Your task to perform on an android device: View the shopping cart on amazon. Image 0: 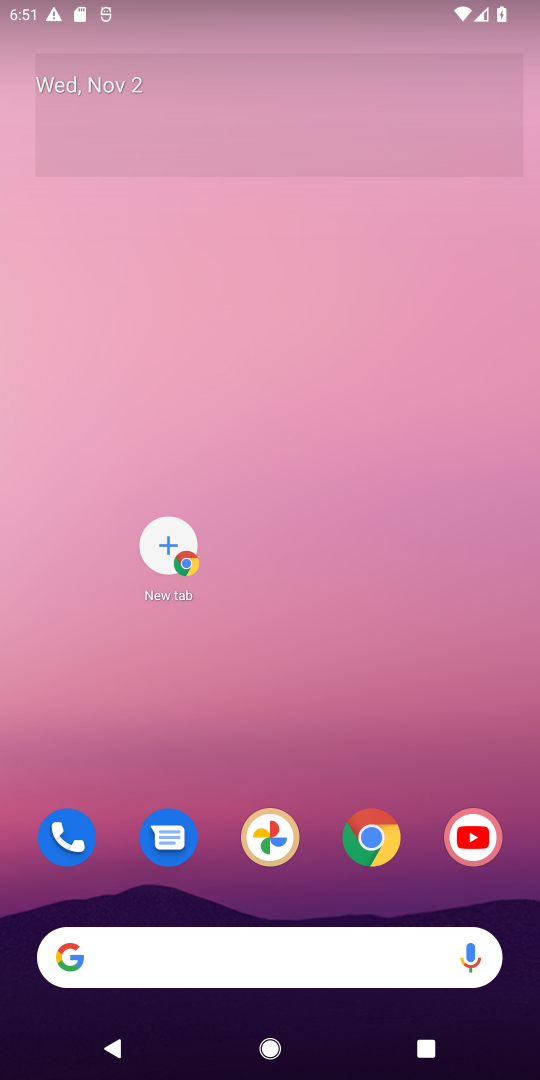
Step 0: press home button
Your task to perform on an android device: View the shopping cart on amazon. Image 1: 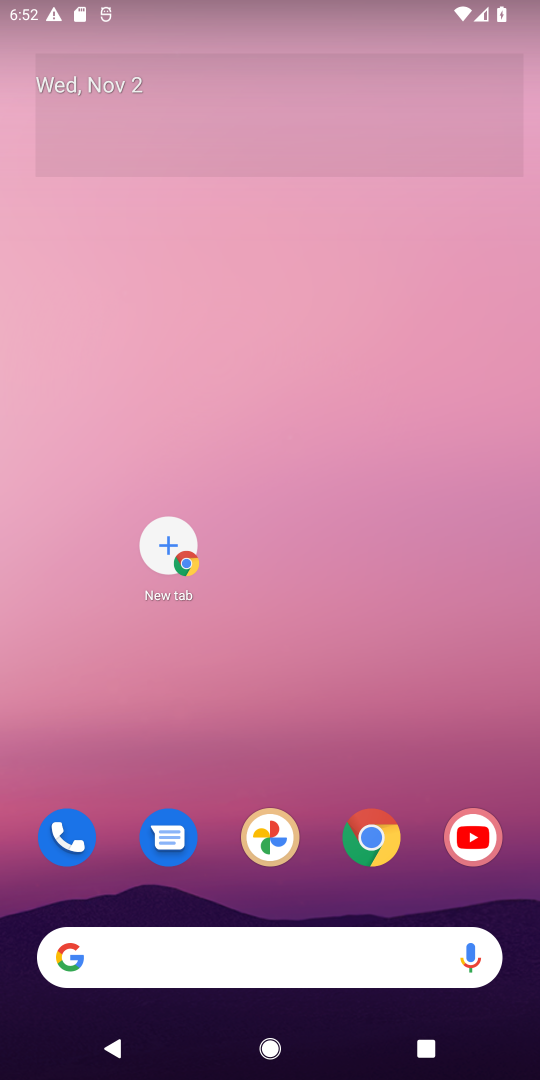
Step 1: click (157, 547)
Your task to perform on an android device: View the shopping cart on amazon. Image 2: 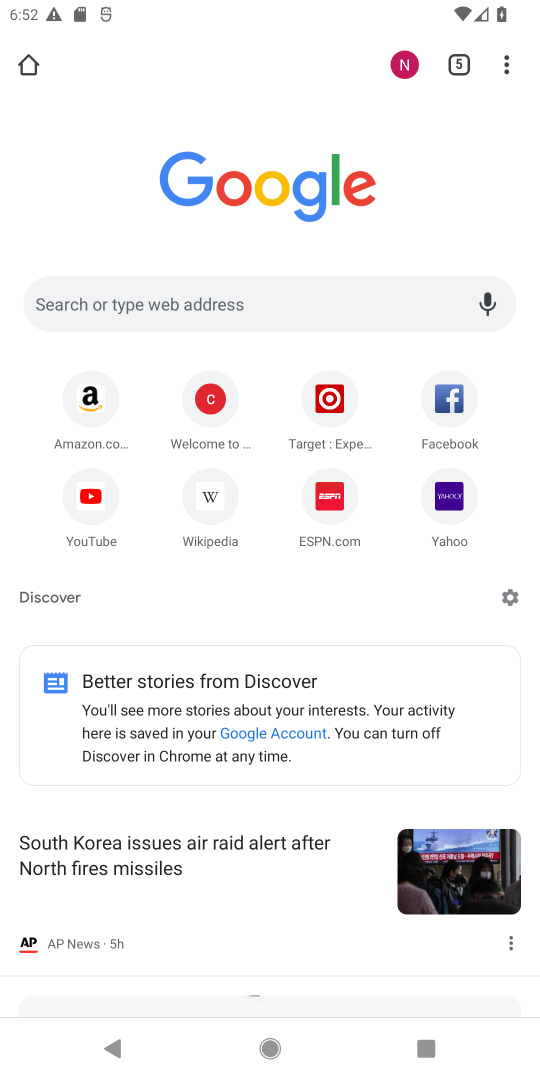
Step 2: click (180, 308)
Your task to perform on an android device: View the shopping cart on amazon. Image 3: 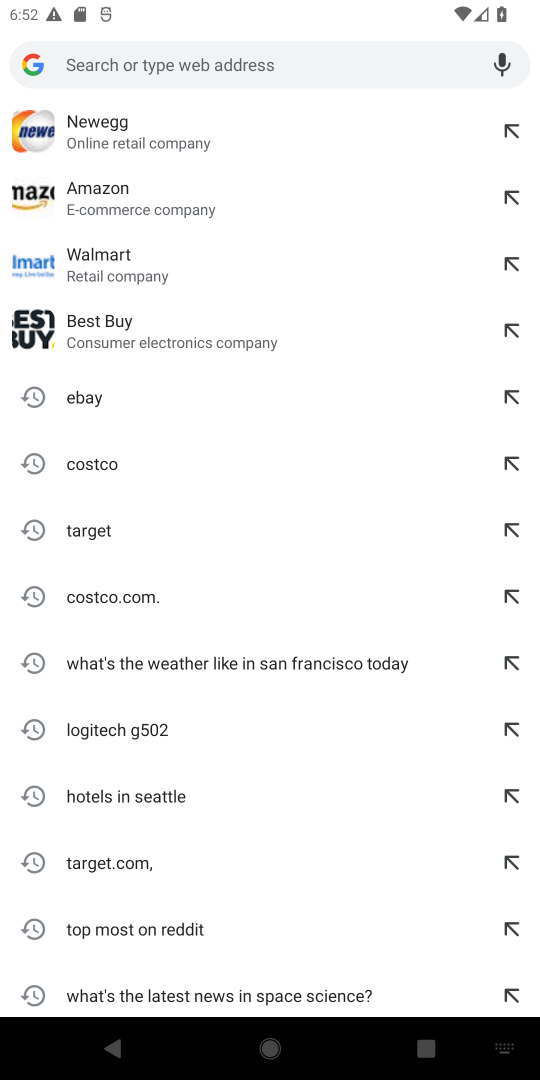
Step 3: type "amazone.com"
Your task to perform on an android device: View the shopping cart on amazon. Image 4: 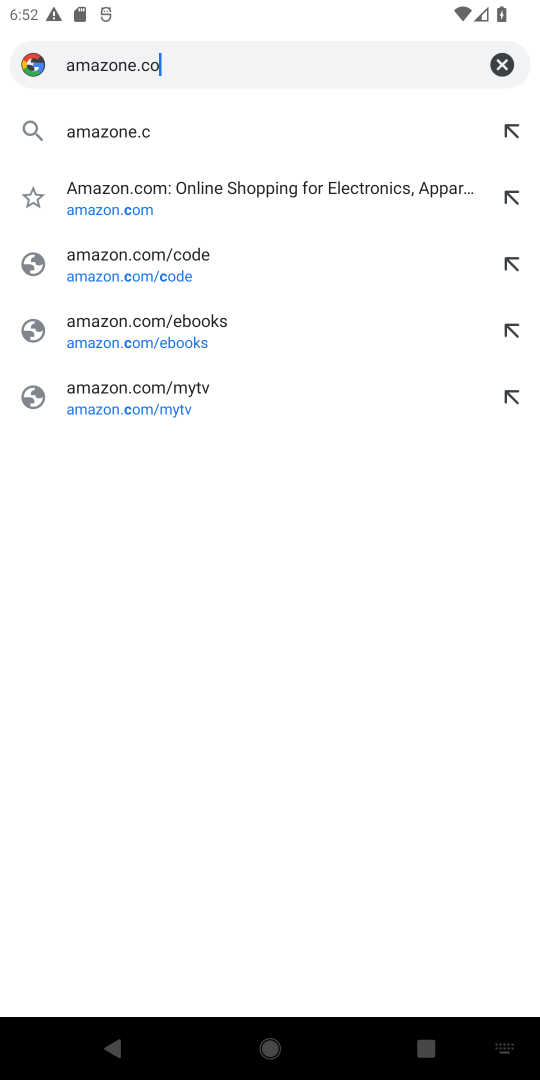
Step 4: type ""
Your task to perform on an android device: View the shopping cart on amazon. Image 5: 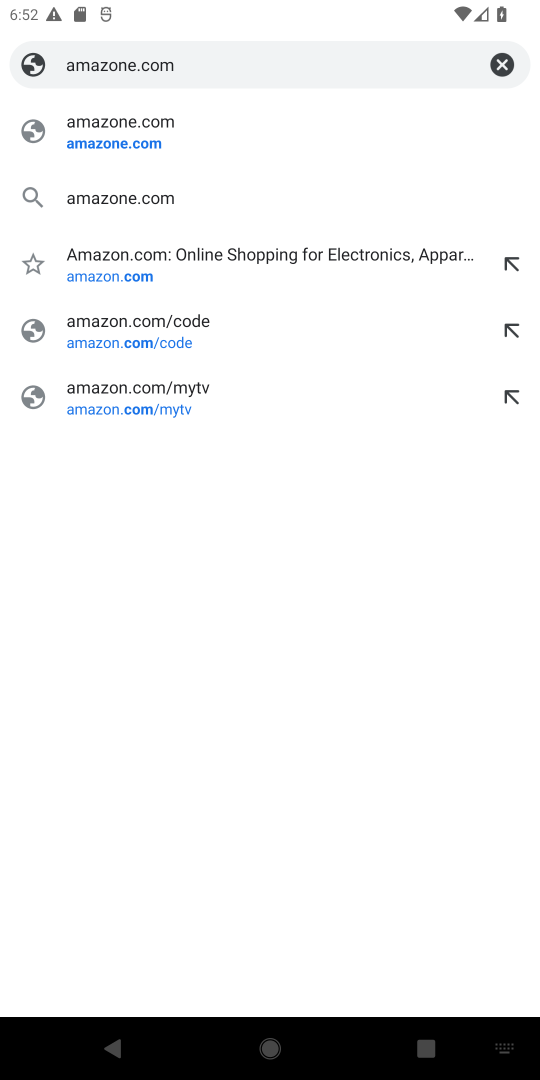
Step 5: click (197, 272)
Your task to perform on an android device: View the shopping cart on amazon. Image 6: 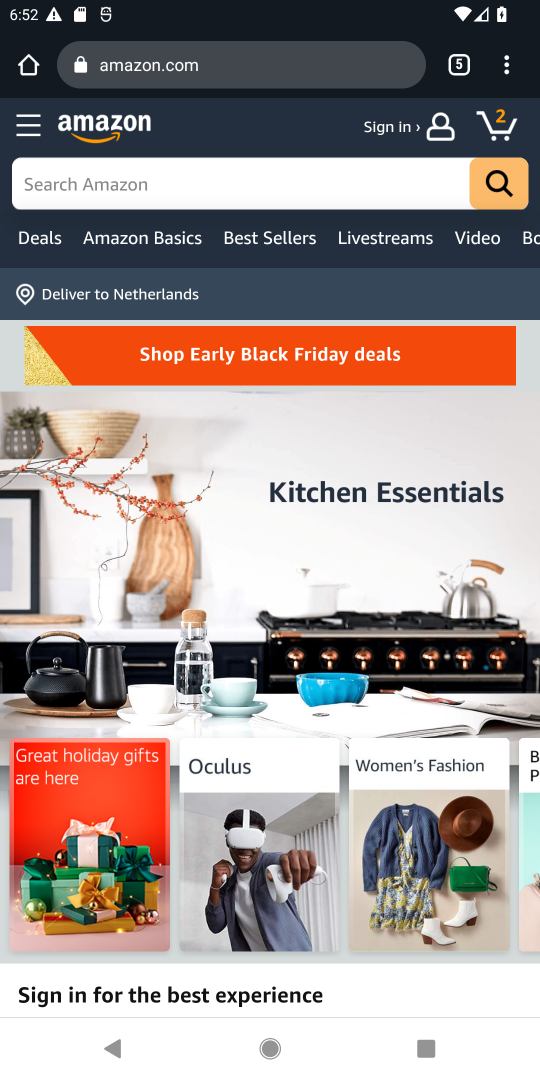
Step 6: click (502, 131)
Your task to perform on an android device: View the shopping cart on amazon. Image 7: 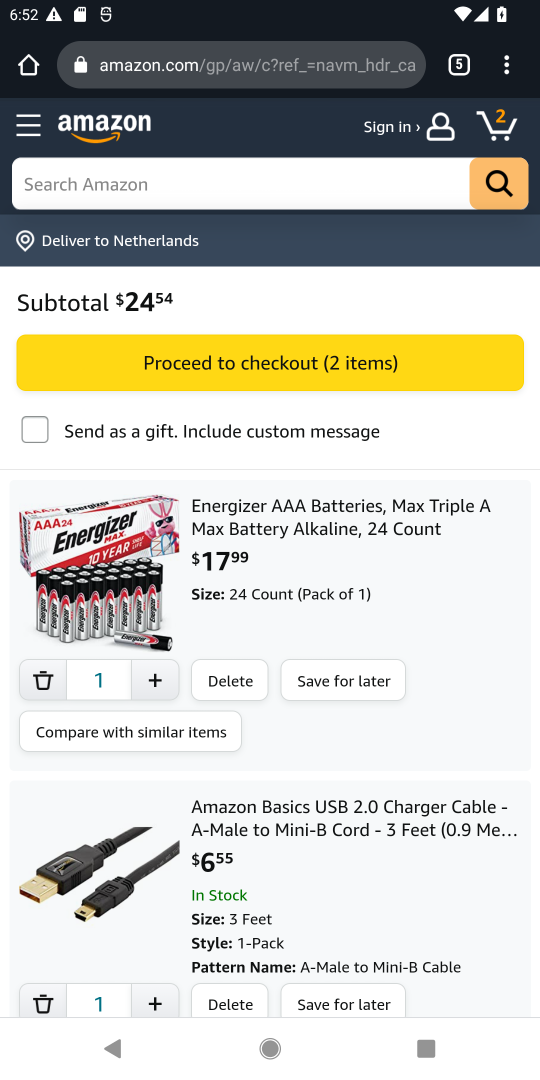
Step 7: drag from (355, 795) to (322, 422)
Your task to perform on an android device: View the shopping cart on amazon. Image 8: 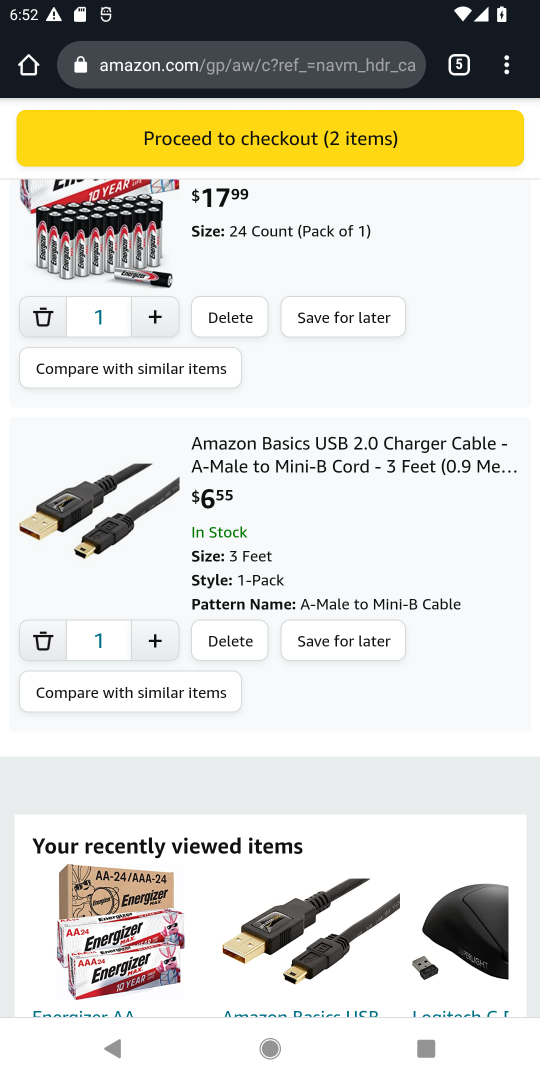
Step 8: drag from (310, 665) to (330, 291)
Your task to perform on an android device: View the shopping cart on amazon. Image 9: 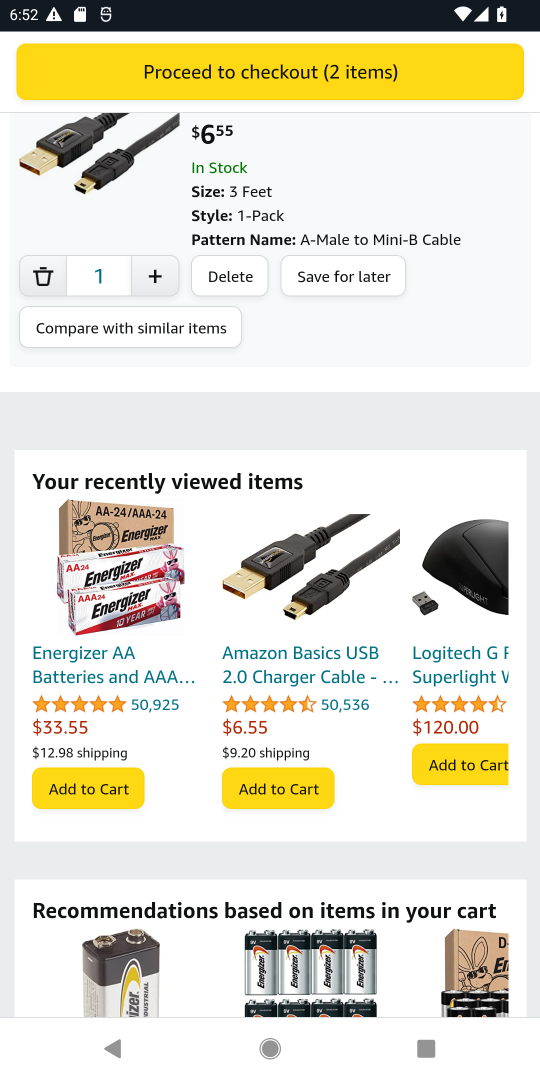
Step 9: drag from (327, 731) to (387, 919)
Your task to perform on an android device: View the shopping cart on amazon. Image 10: 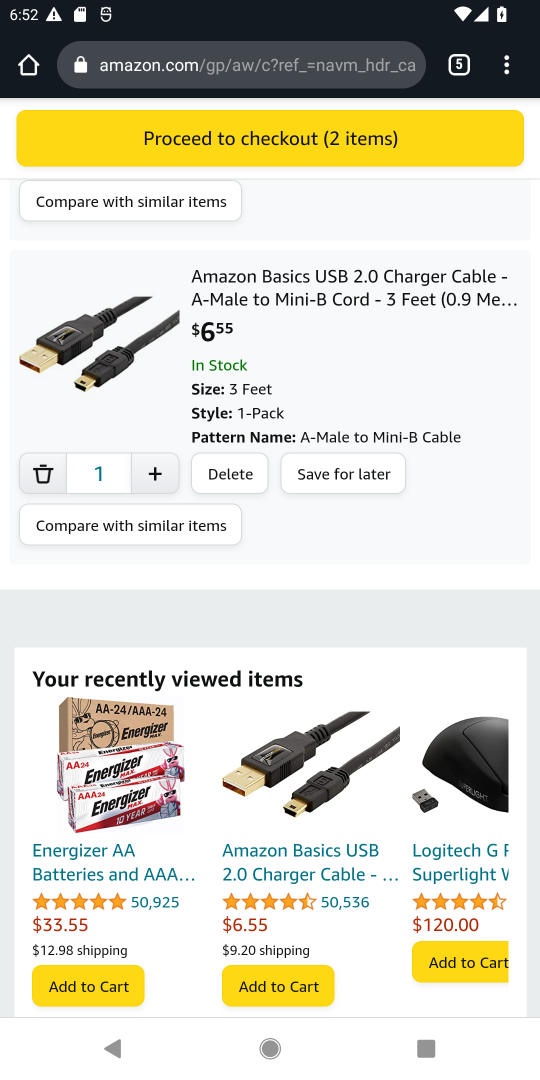
Step 10: drag from (323, 348) to (365, 769)
Your task to perform on an android device: View the shopping cart on amazon. Image 11: 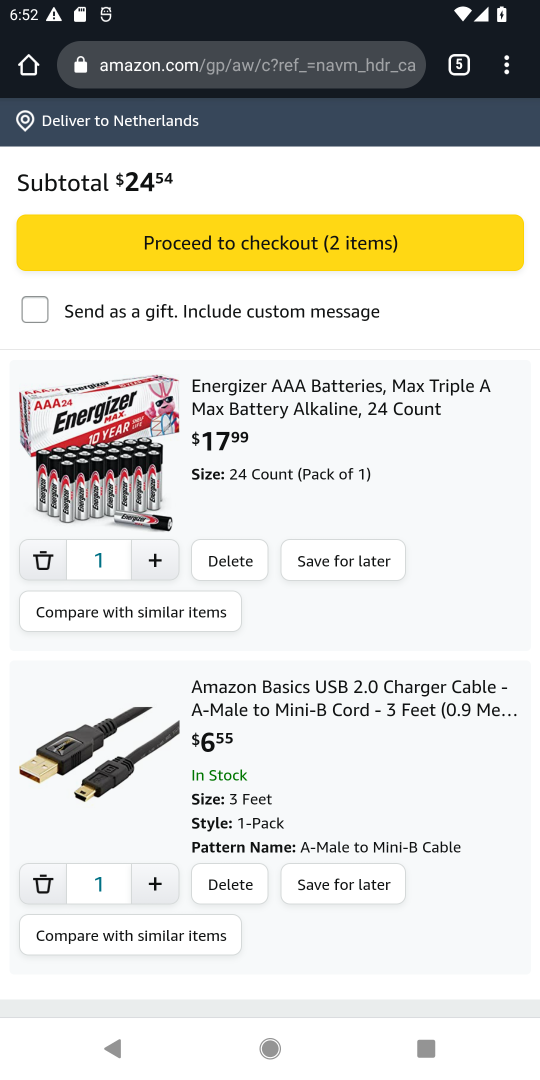
Step 11: click (335, 419)
Your task to perform on an android device: View the shopping cart on amazon. Image 12: 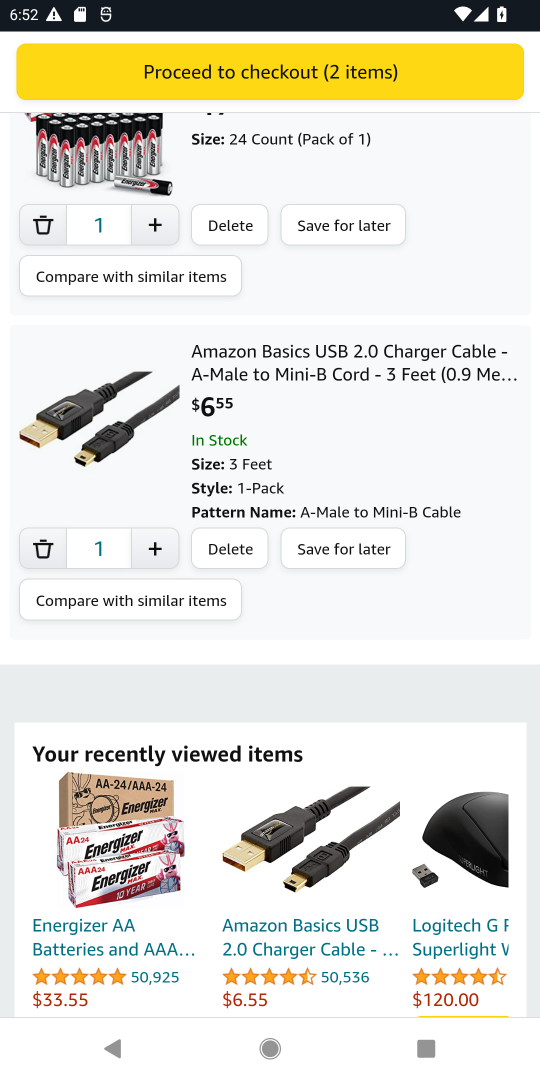
Step 12: task complete